Your task to perform on an android device: Go to internet settings Image 0: 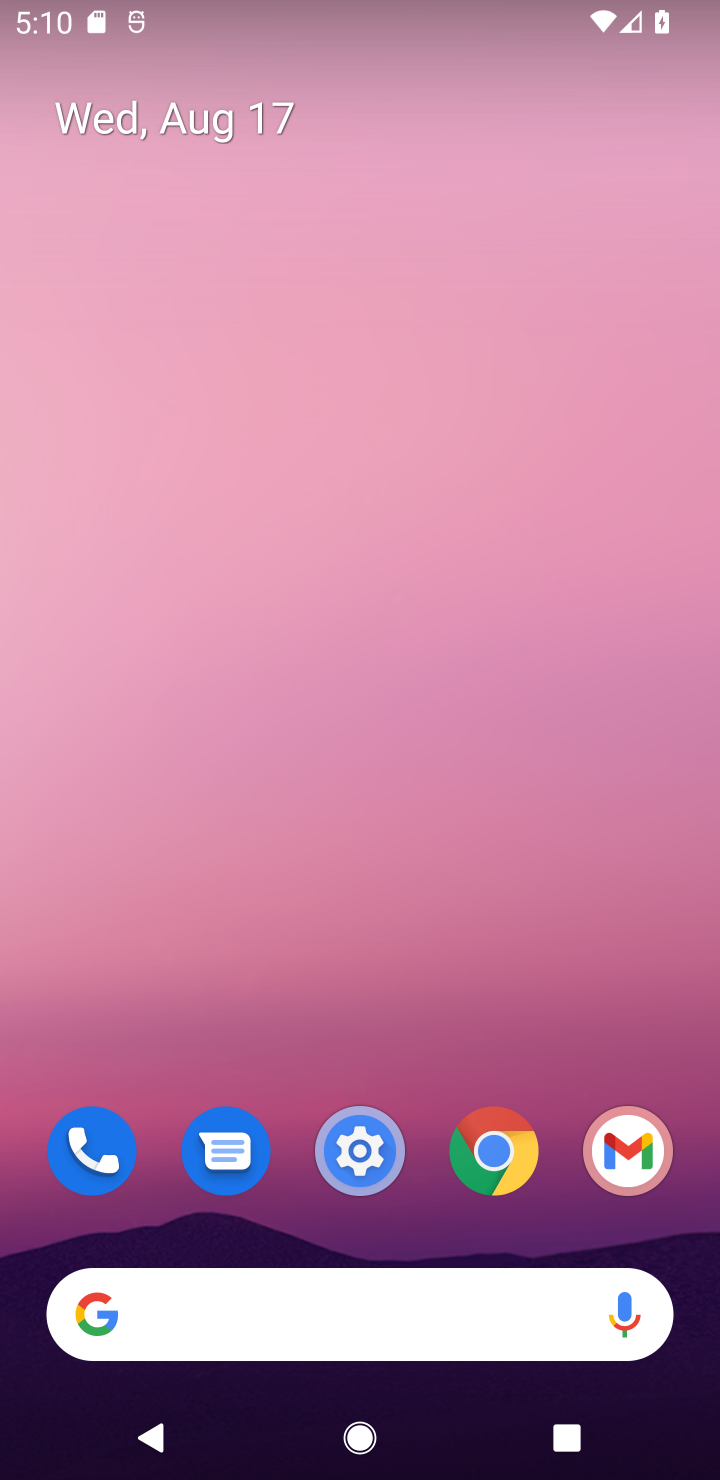
Step 0: click (362, 1152)
Your task to perform on an android device: Go to internet settings Image 1: 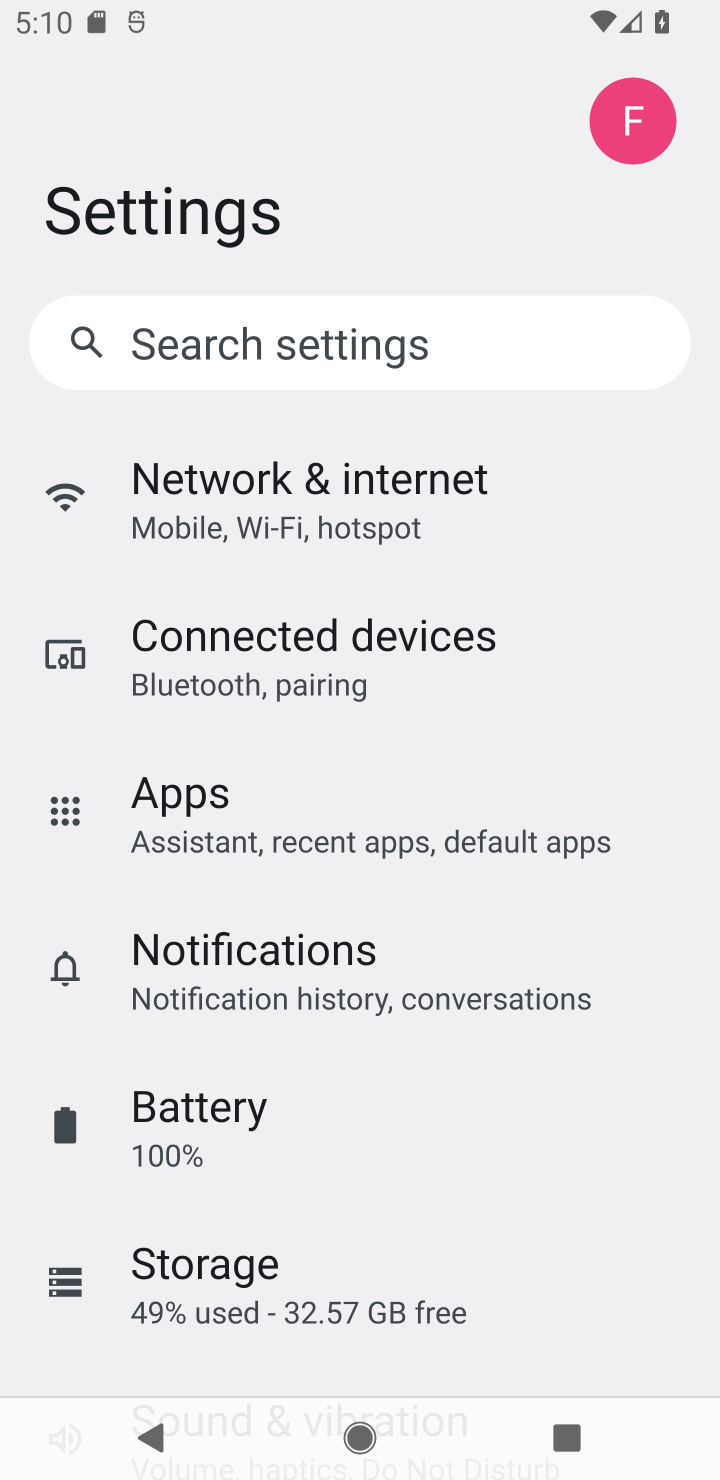
Step 1: click (223, 494)
Your task to perform on an android device: Go to internet settings Image 2: 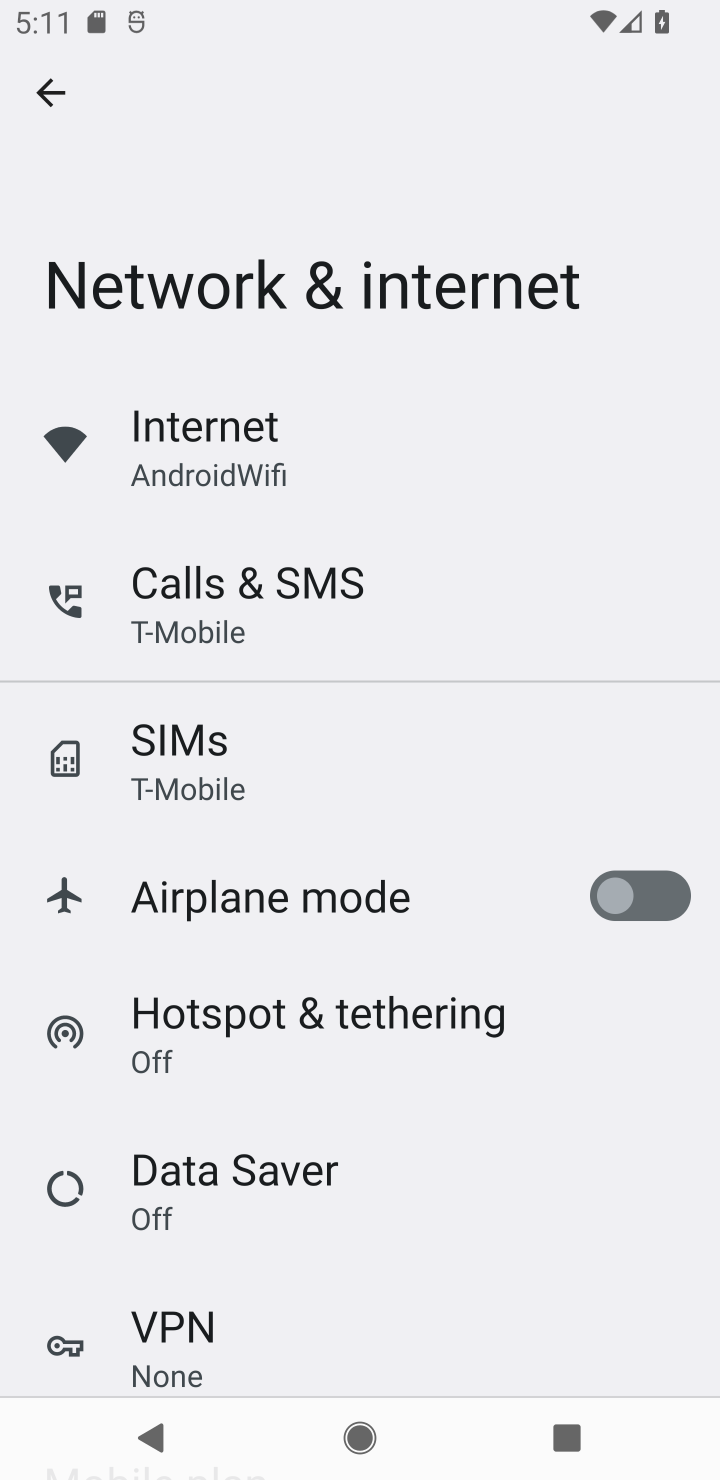
Step 2: click (190, 433)
Your task to perform on an android device: Go to internet settings Image 3: 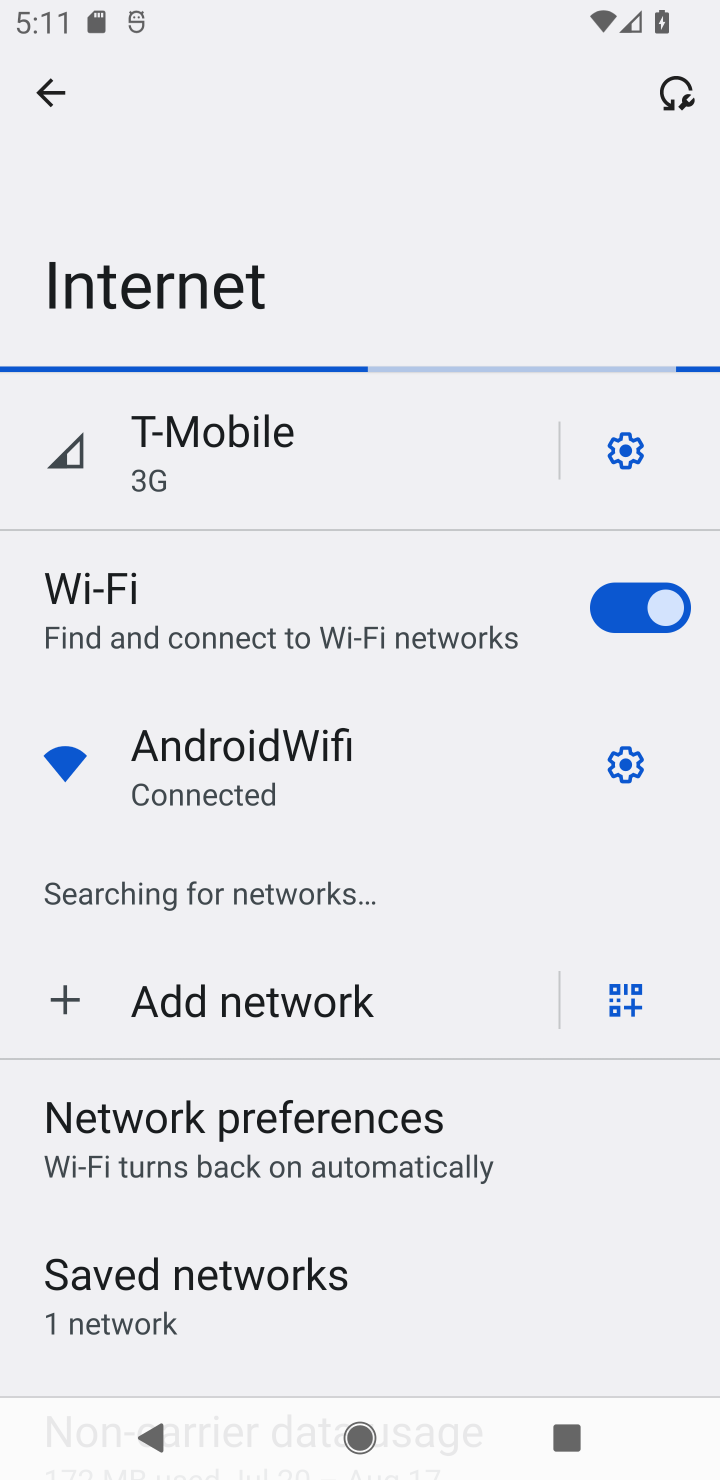
Step 3: click (632, 453)
Your task to perform on an android device: Go to internet settings Image 4: 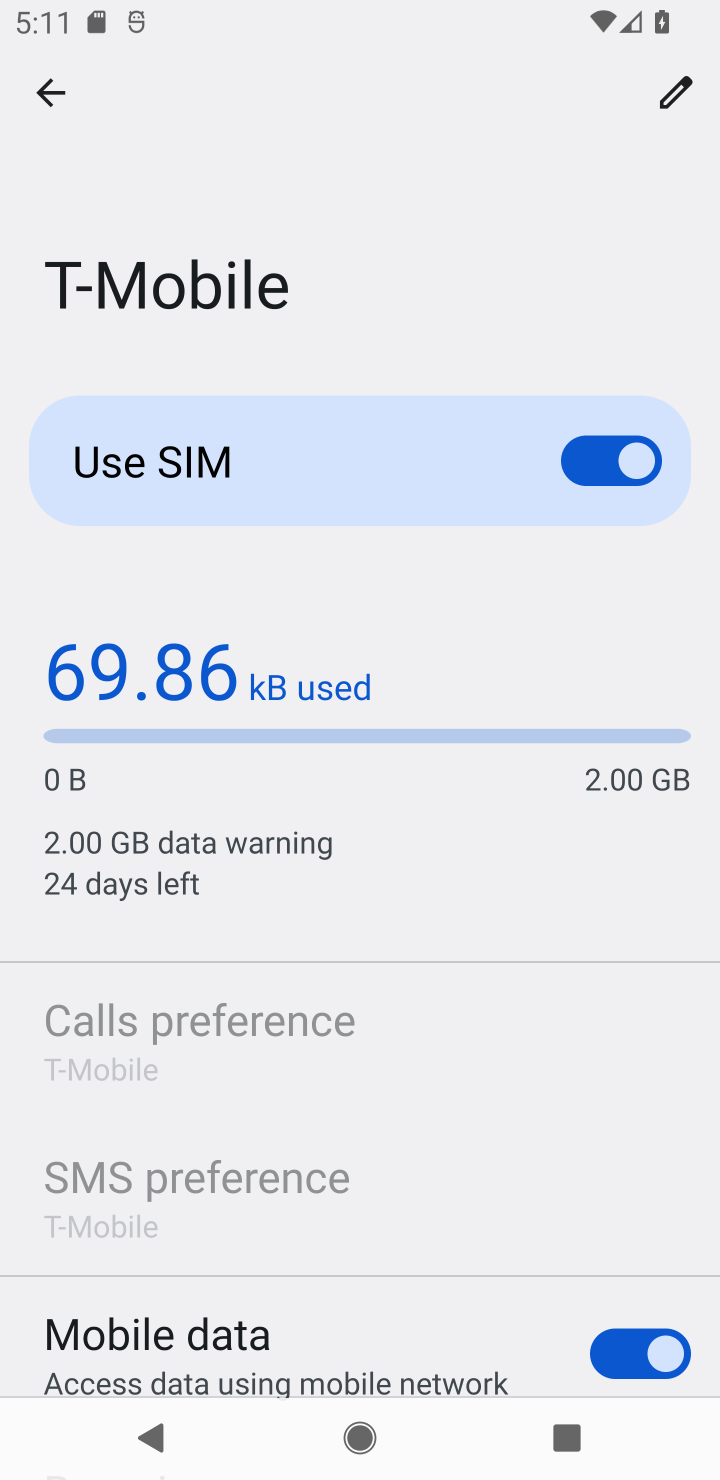
Step 4: task complete